Your task to perform on an android device: Go to ESPN.com Image 0: 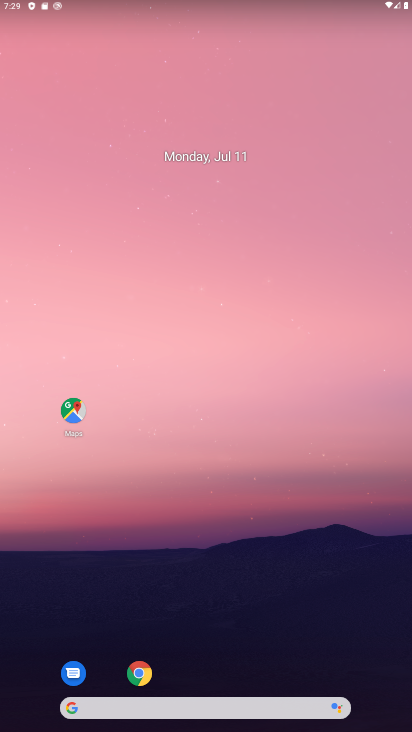
Step 0: click (143, 679)
Your task to perform on an android device: Go to ESPN.com Image 1: 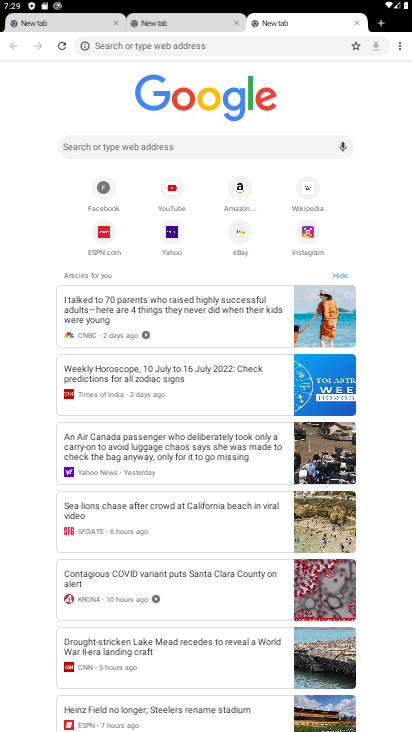
Step 1: click (103, 235)
Your task to perform on an android device: Go to ESPN.com Image 2: 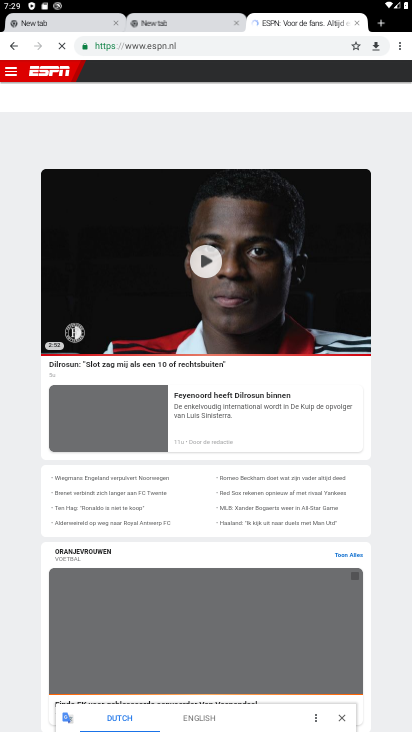
Step 2: click (236, 23)
Your task to perform on an android device: Go to ESPN.com Image 3: 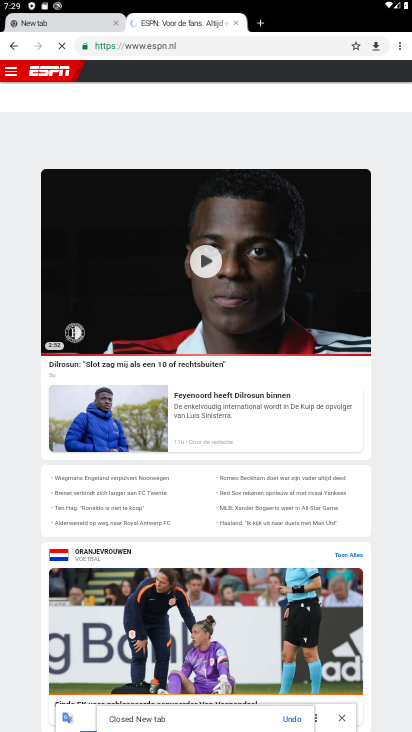
Step 3: click (119, 24)
Your task to perform on an android device: Go to ESPN.com Image 4: 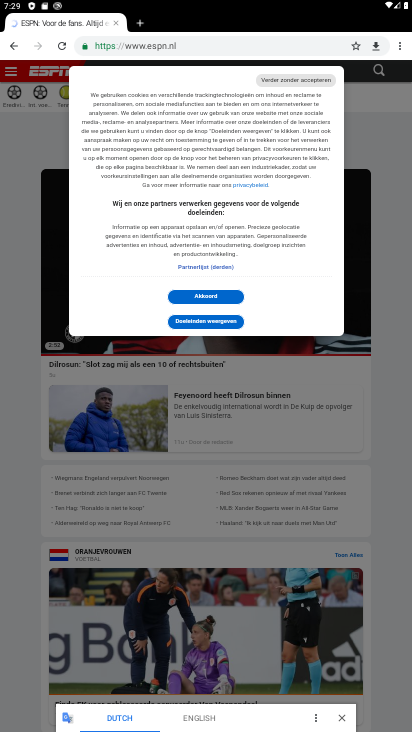
Step 4: task complete